Your task to perform on an android device: uninstall "Facebook Lite" Image 0: 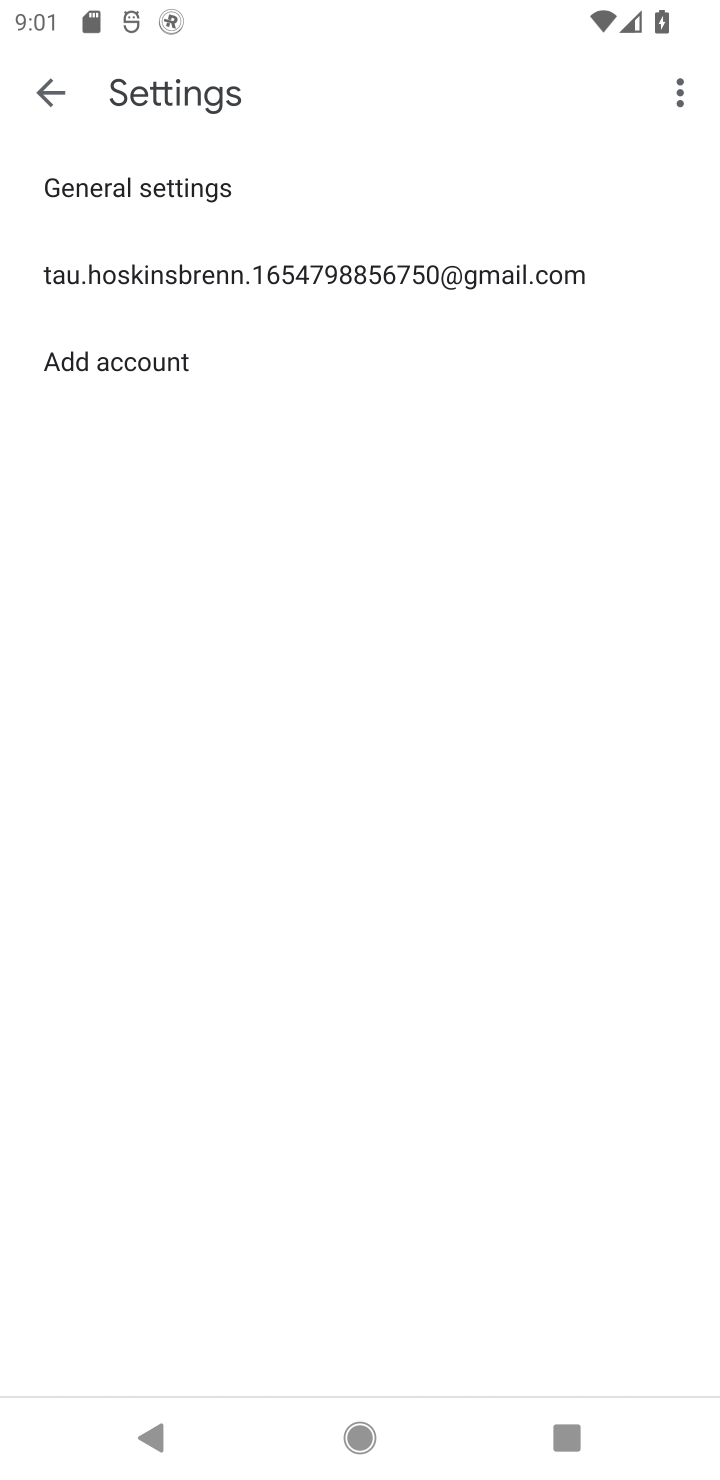
Step 0: press home button
Your task to perform on an android device: uninstall "Facebook Lite" Image 1: 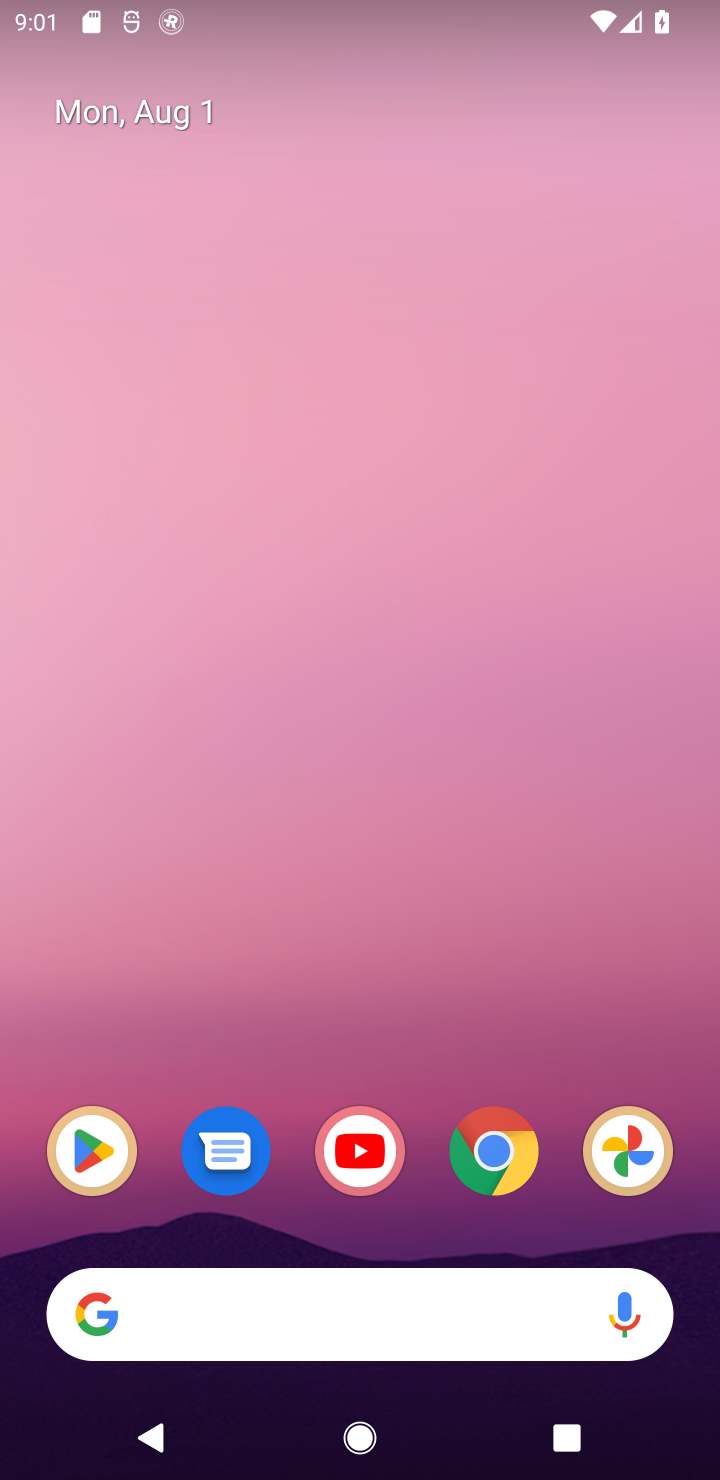
Step 1: click (108, 1169)
Your task to perform on an android device: uninstall "Facebook Lite" Image 2: 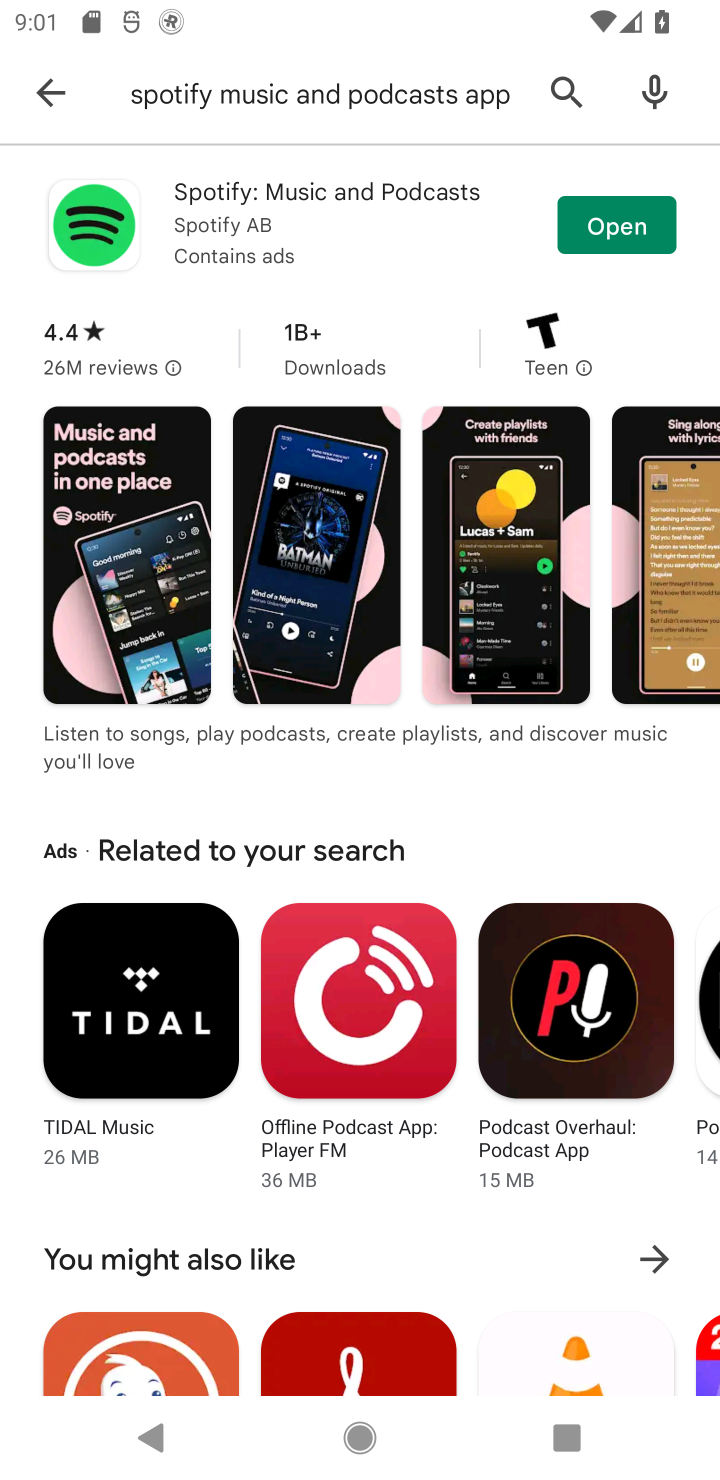
Step 2: click (551, 96)
Your task to perform on an android device: uninstall "Facebook Lite" Image 3: 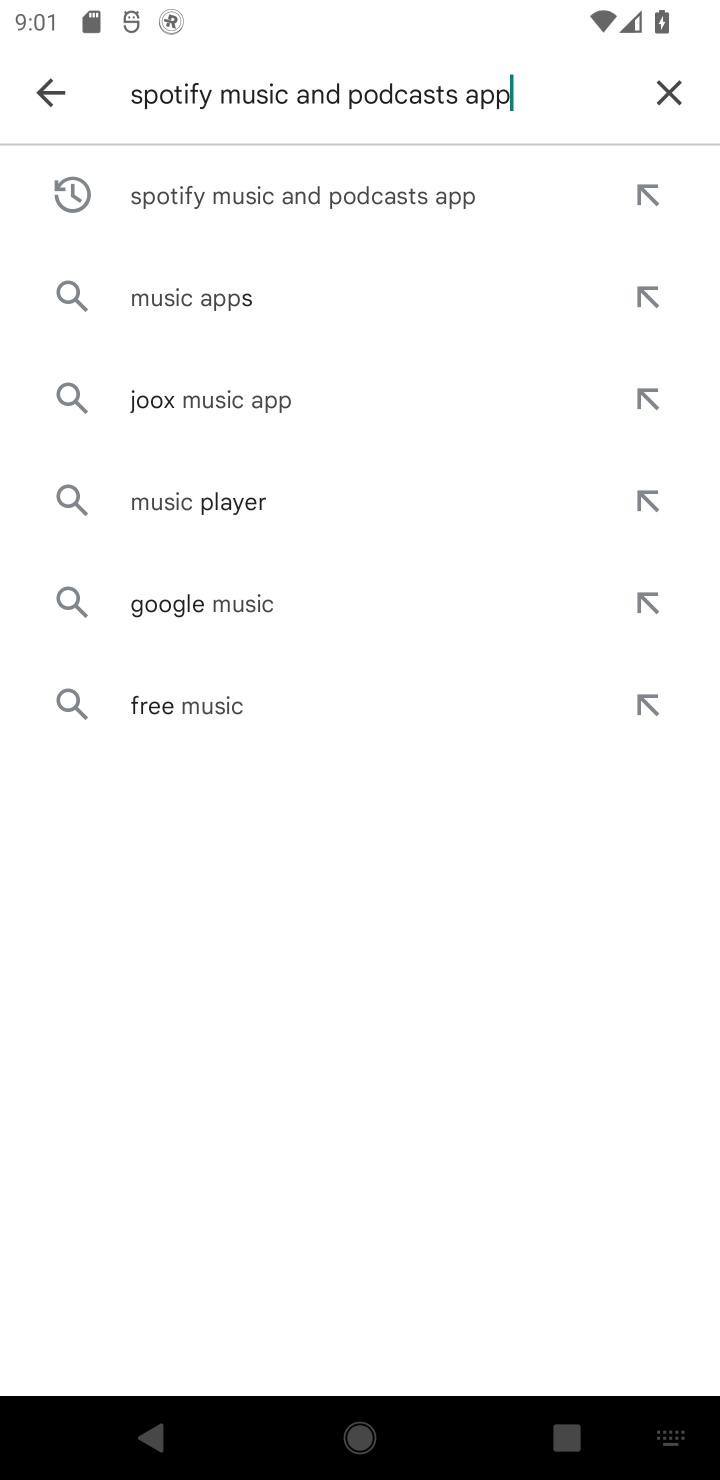
Step 3: click (665, 79)
Your task to perform on an android device: uninstall "Facebook Lite" Image 4: 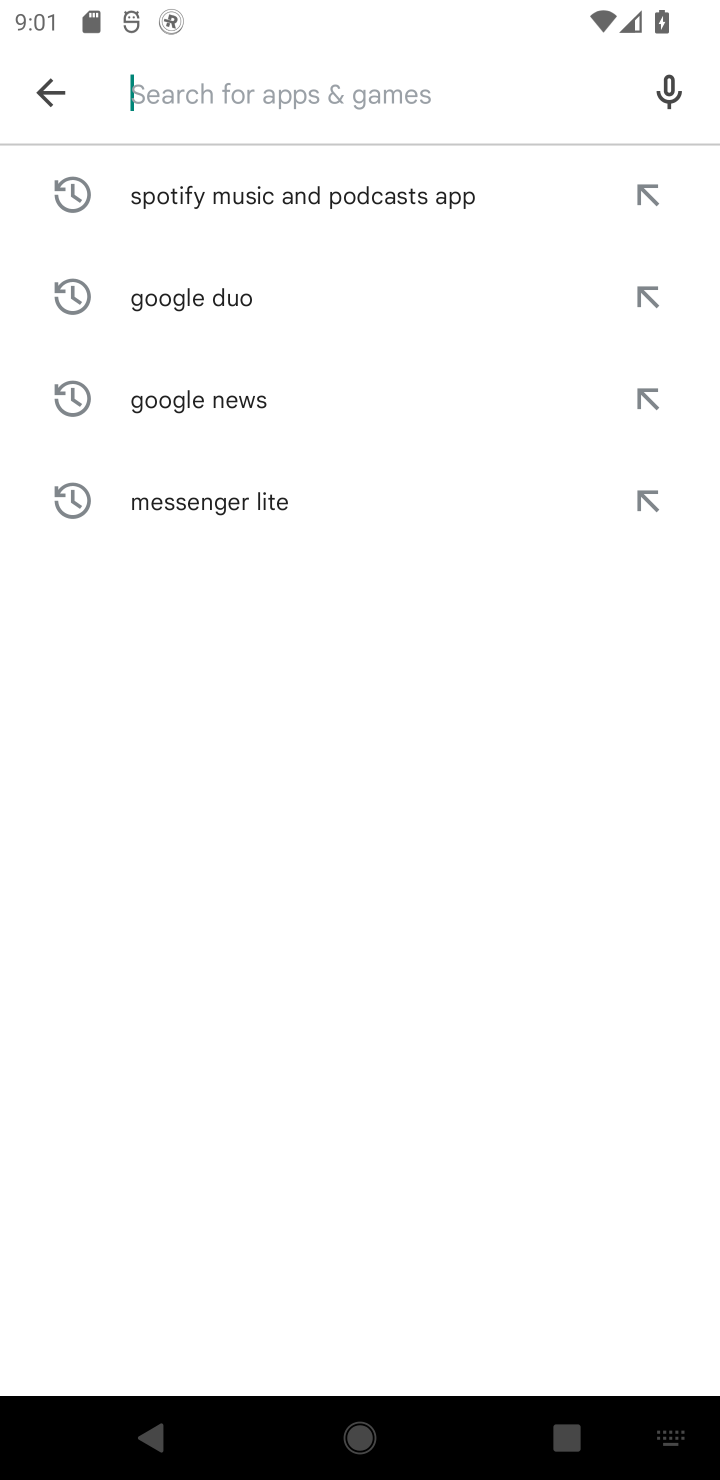
Step 4: type "Facebook Lite"
Your task to perform on an android device: uninstall "Facebook Lite" Image 5: 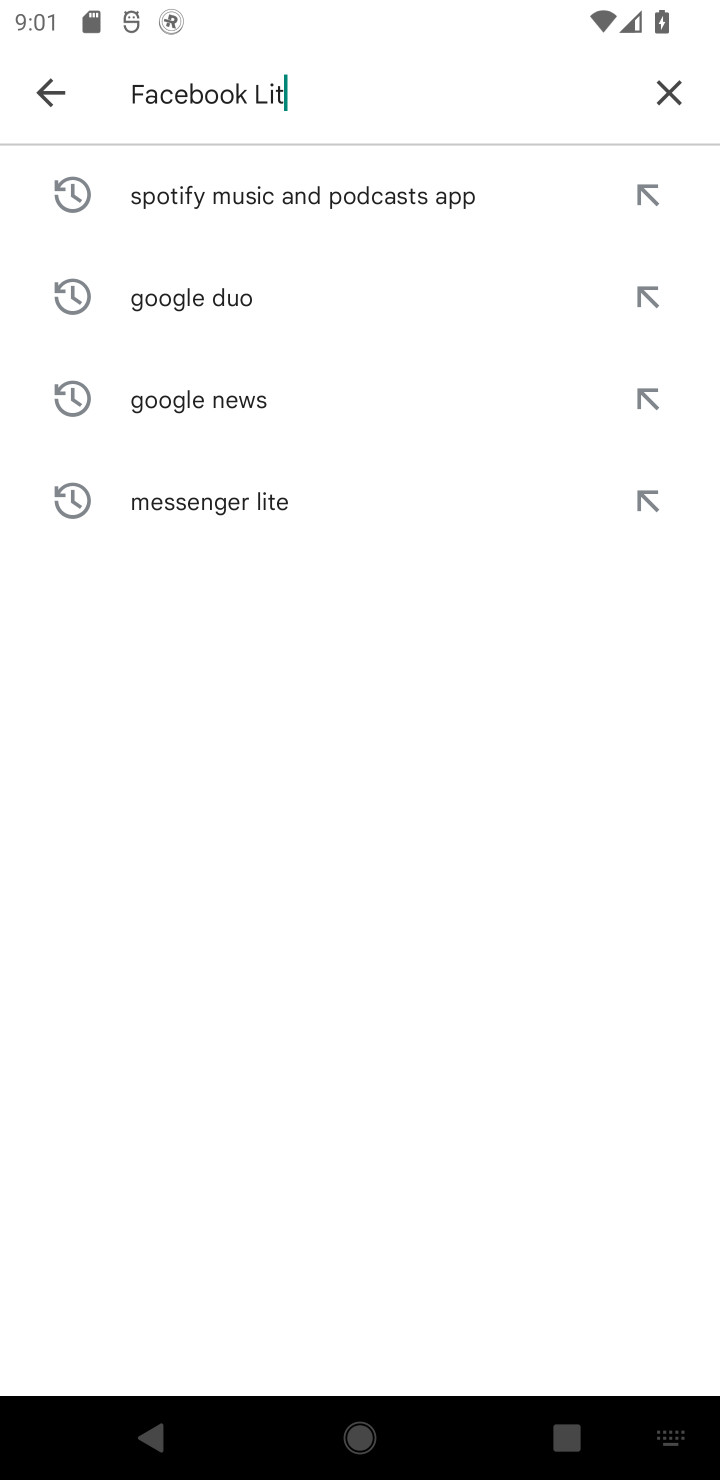
Step 5: type ""
Your task to perform on an android device: uninstall "Facebook Lite" Image 6: 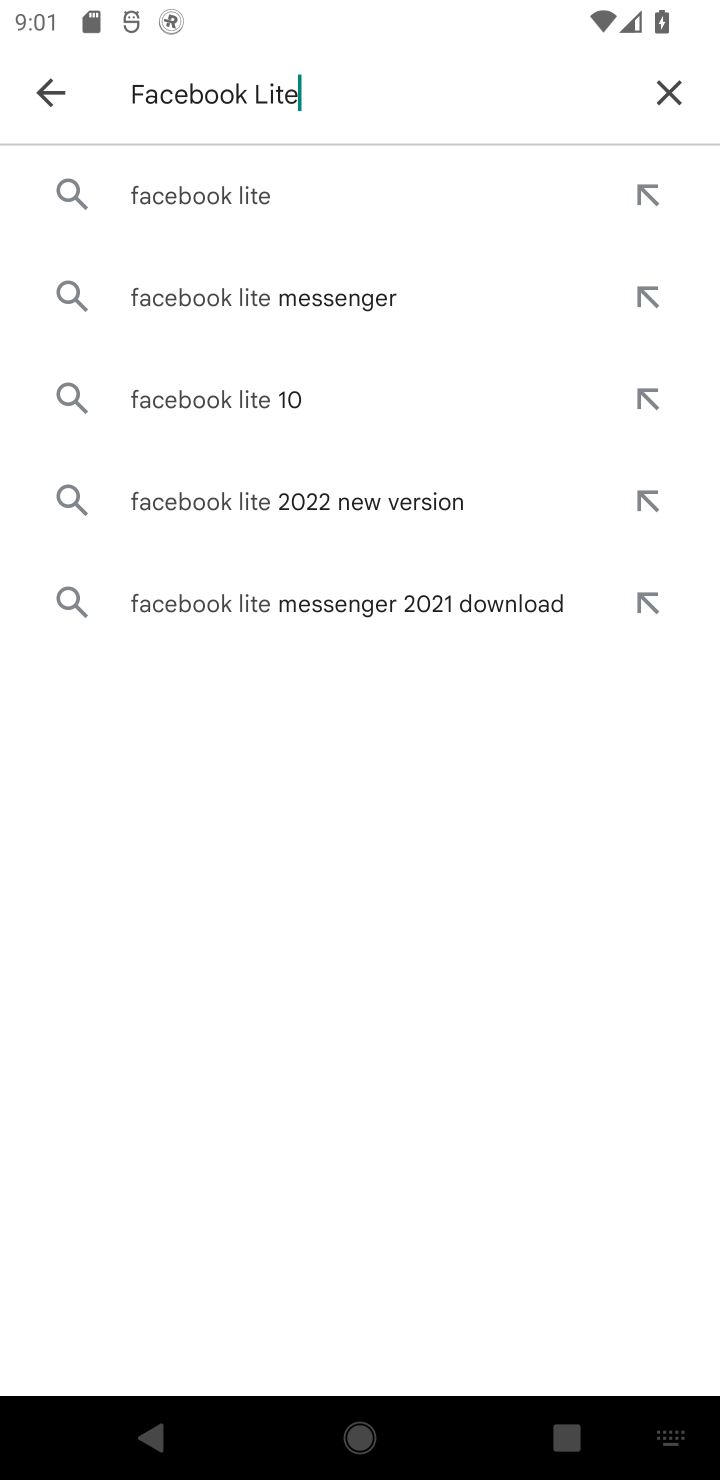
Step 6: click (229, 174)
Your task to perform on an android device: uninstall "Facebook Lite" Image 7: 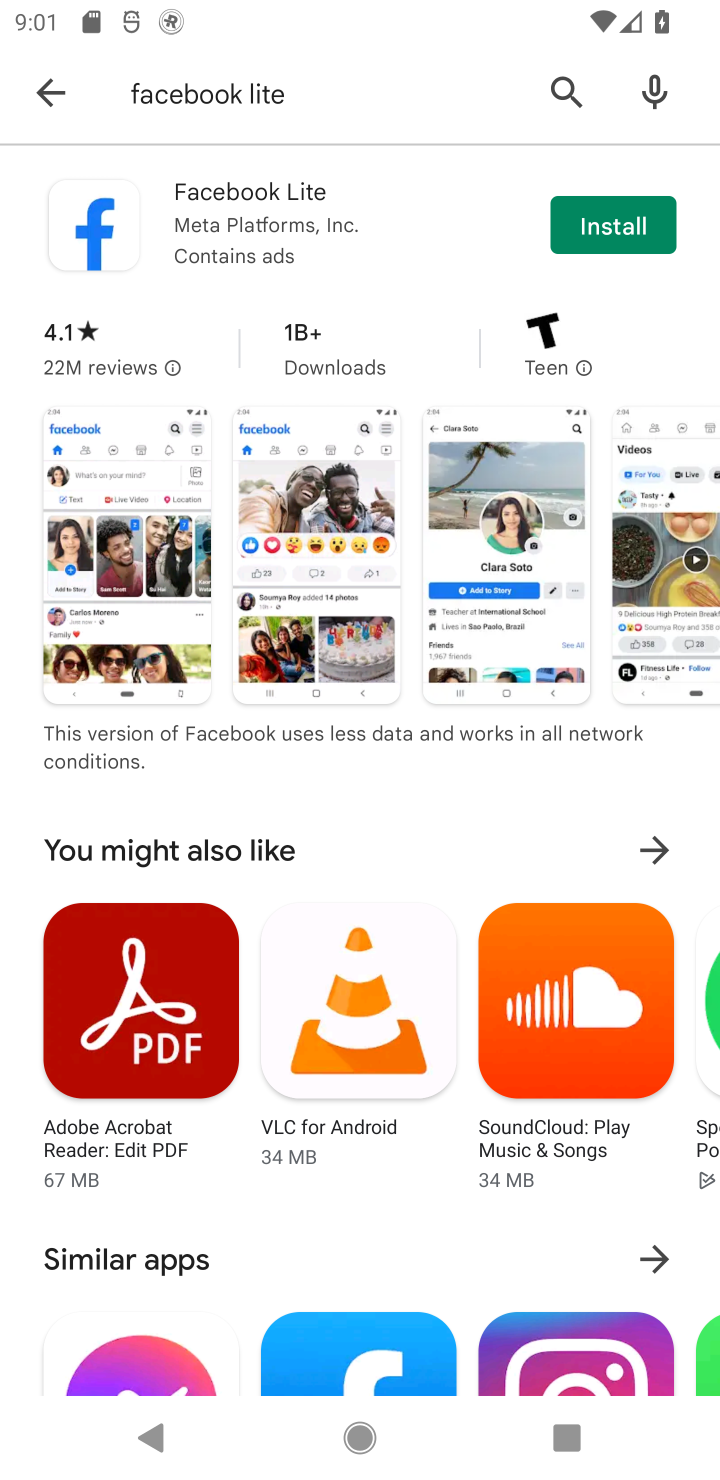
Step 7: task complete